Your task to perform on an android device: show emergency info Image 0: 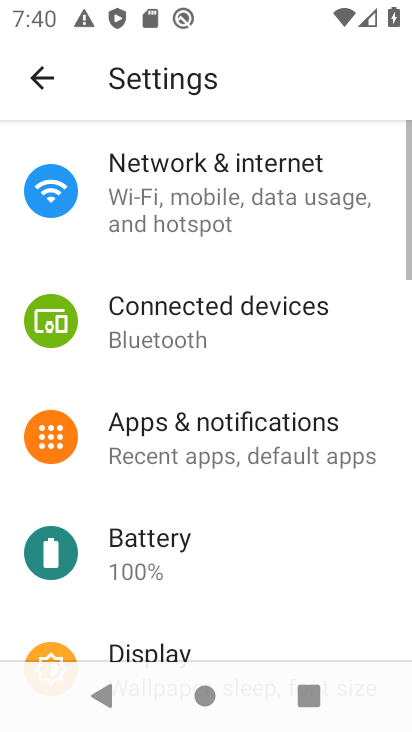
Step 0: drag from (323, 640) to (324, 204)
Your task to perform on an android device: show emergency info Image 1: 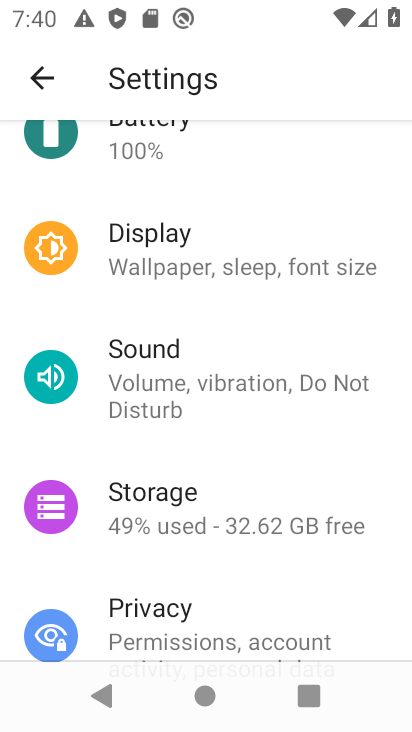
Step 1: drag from (341, 644) to (268, 159)
Your task to perform on an android device: show emergency info Image 2: 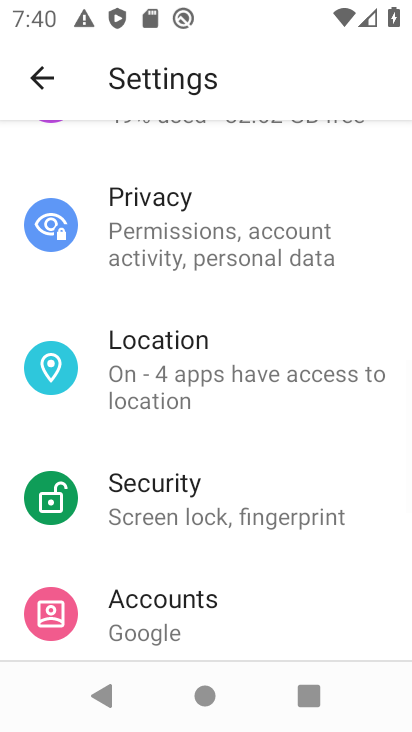
Step 2: drag from (295, 603) to (293, 155)
Your task to perform on an android device: show emergency info Image 3: 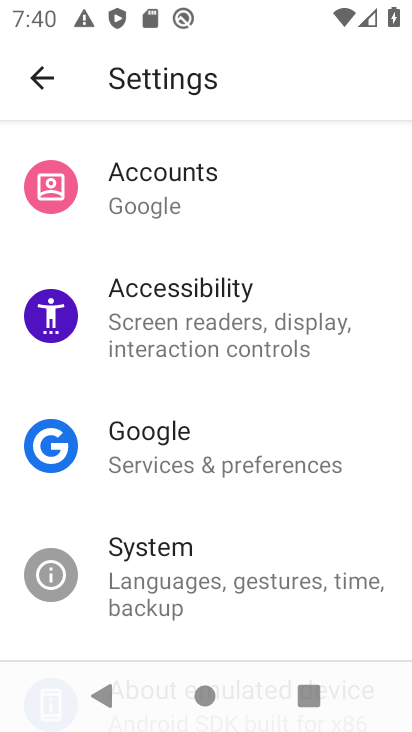
Step 3: drag from (308, 626) to (268, 166)
Your task to perform on an android device: show emergency info Image 4: 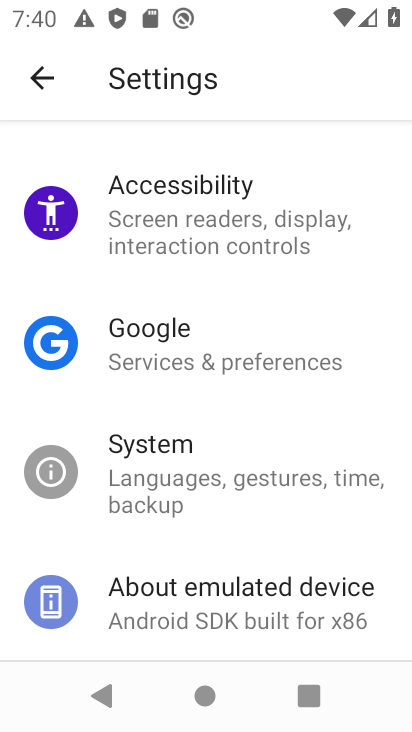
Step 4: click (170, 600)
Your task to perform on an android device: show emergency info Image 5: 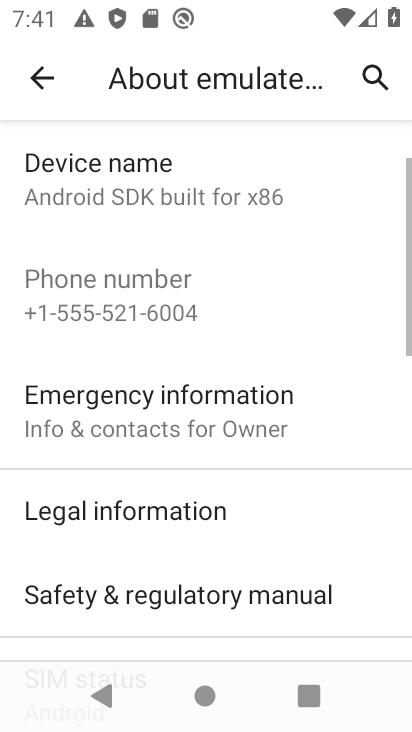
Step 5: click (120, 410)
Your task to perform on an android device: show emergency info Image 6: 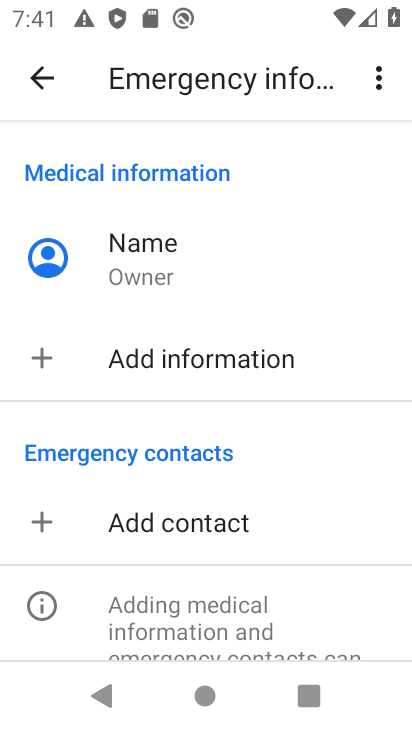
Step 6: task complete